Your task to perform on an android device: read, delete, or share a saved page in the chrome app Image 0: 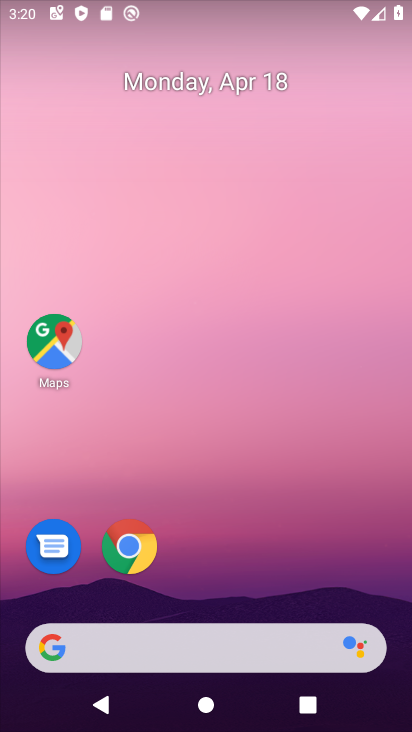
Step 0: drag from (238, 598) to (219, 118)
Your task to perform on an android device: read, delete, or share a saved page in the chrome app Image 1: 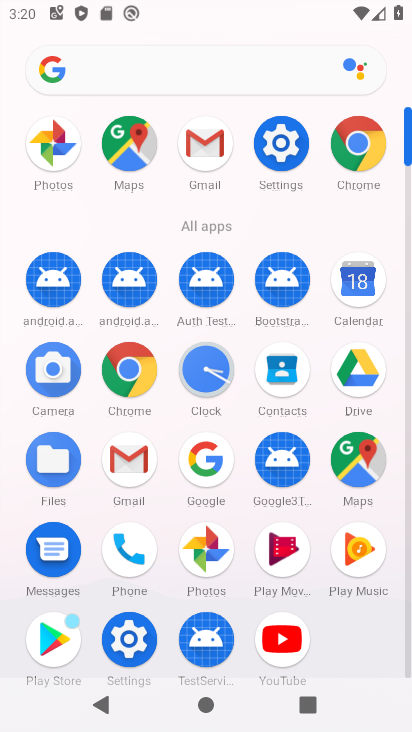
Step 1: click (356, 159)
Your task to perform on an android device: read, delete, or share a saved page in the chrome app Image 2: 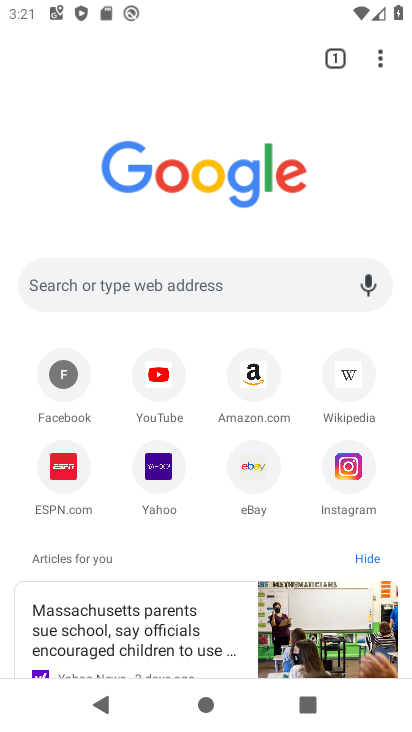
Step 2: task complete